Your task to perform on an android device: refresh tabs in the chrome app Image 0: 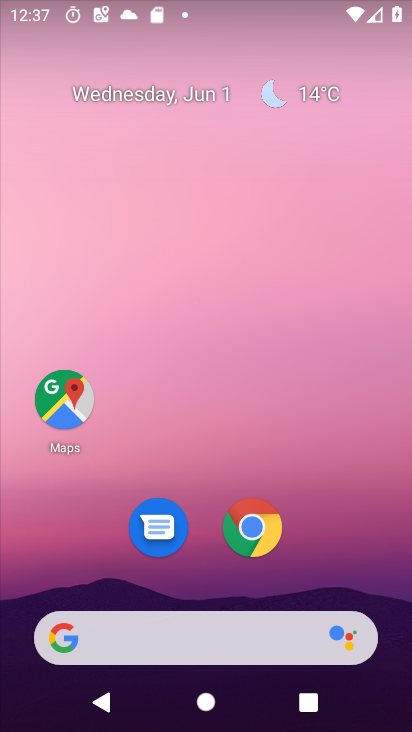
Step 0: click (252, 531)
Your task to perform on an android device: refresh tabs in the chrome app Image 1: 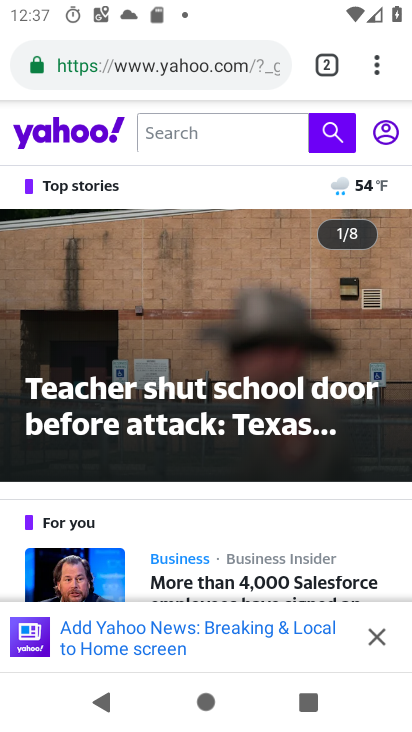
Step 1: click (377, 72)
Your task to perform on an android device: refresh tabs in the chrome app Image 2: 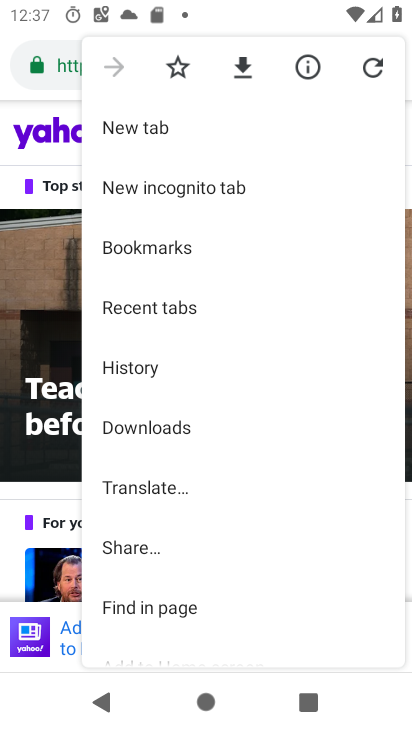
Step 2: click (377, 68)
Your task to perform on an android device: refresh tabs in the chrome app Image 3: 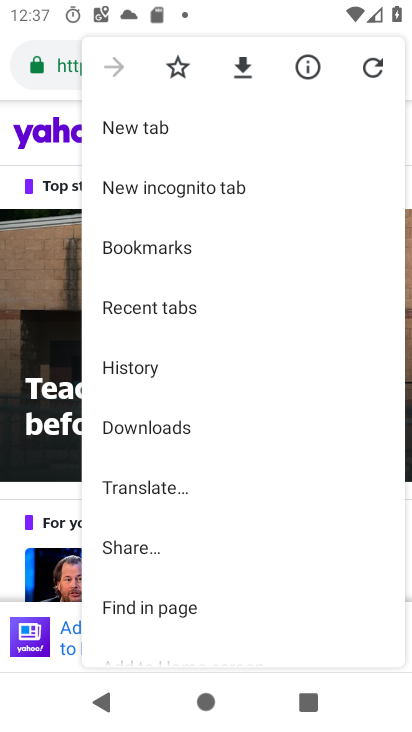
Step 3: click (371, 63)
Your task to perform on an android device: refresh tabs in the chrome app Image 4: 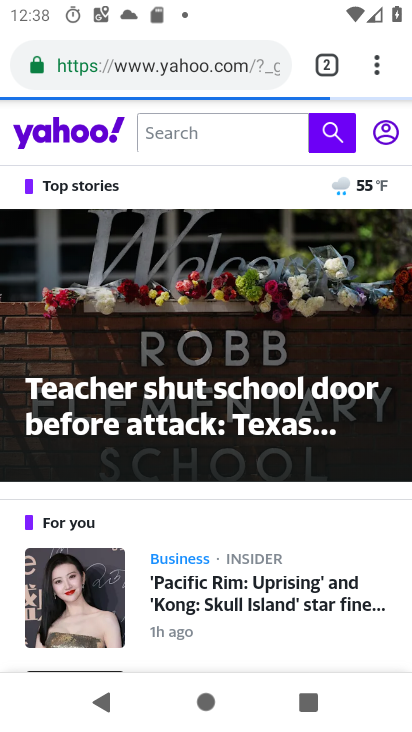
Step 4: task complete